Your task to perform on an android device: Open Google Maps and go to "Timeline" Image 0: 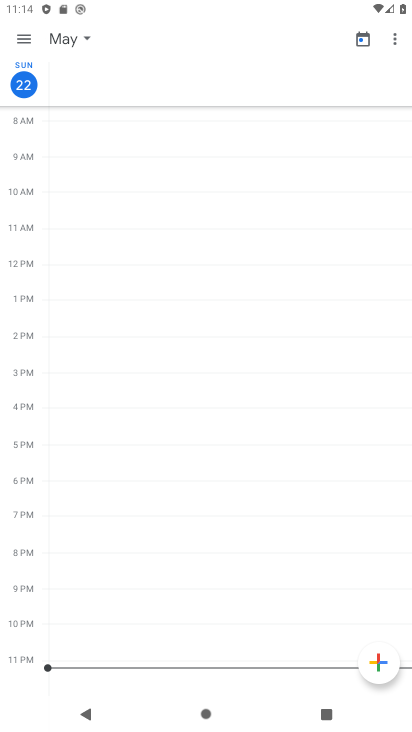
Step 0: press home button
Your task to perform on an android device: Open Google Maps and go to "Timeline" Image 1: 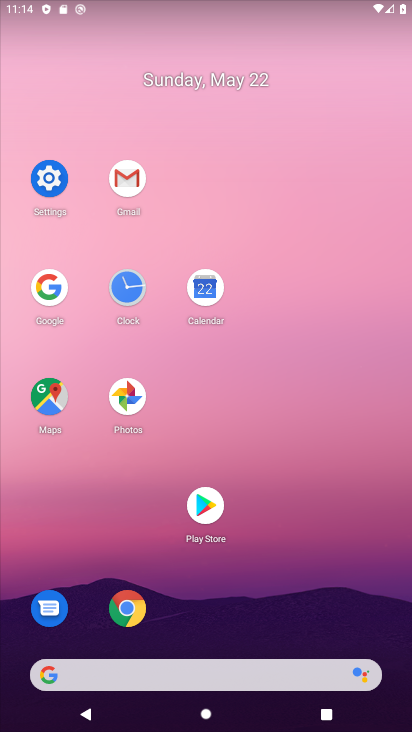
Step 1: click (46, 397)
Your task to perform on an android device: Open Google Maps and go to "Timeline" Image 2: 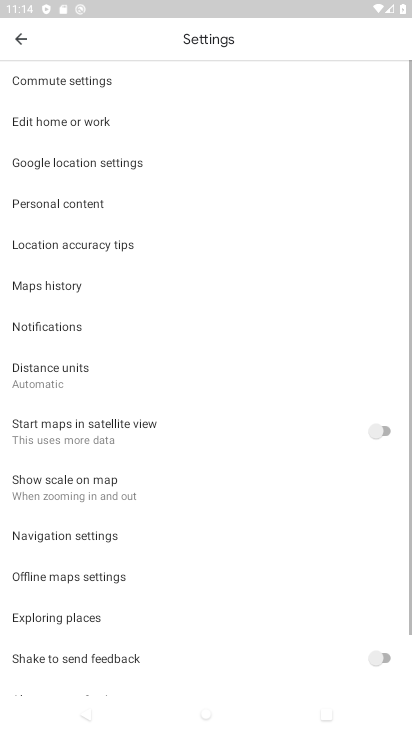
Step 2: drag from (74, 150) to (118, 545)
Your task to perform on an android device: Open Google Maps and go to "Timeline" Image 3: 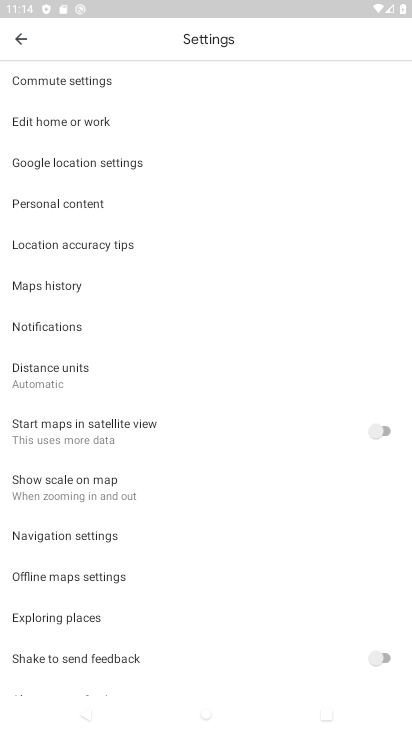
Step 3: click (26, 48)
Your task to perform on an android device: Open Google Maps and go to "Timeline" Image 4: 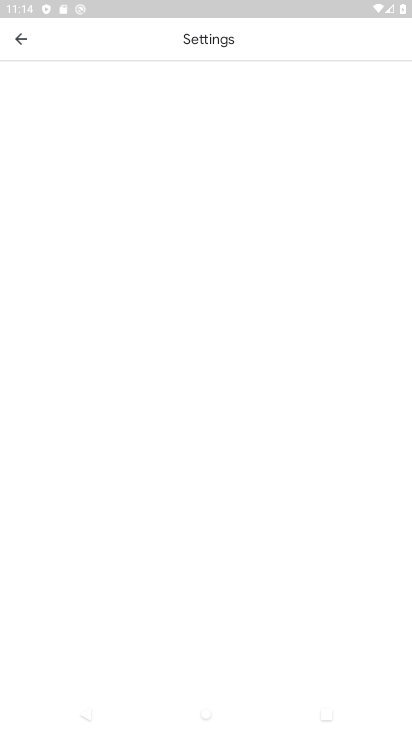
Step 4: click (26, 48)
Your task to perform on an android device: Open Google Maps and go to "Timeline" Image 5: 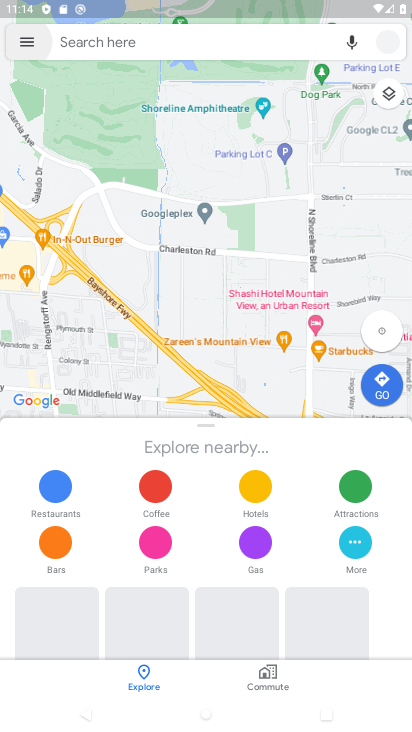
Step 5: click (36, 40)
Your task to perform on an android device: Open Google Maps and go to "Timeline" Image 6: 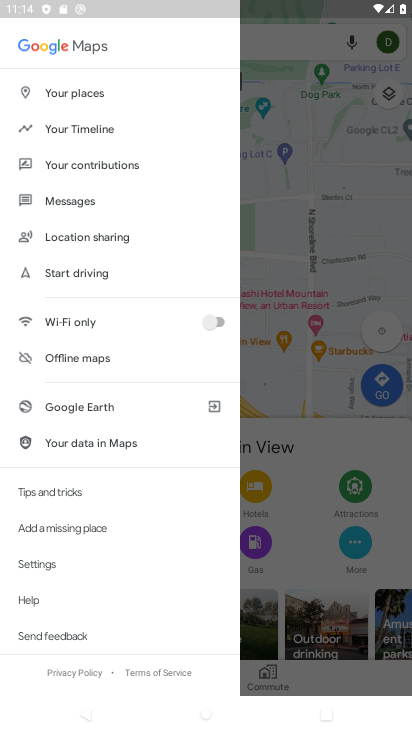
Step 6: click (87, 119)
Your task to perform on an android device: Open Google Maps and go to "Timeline" Image 7: 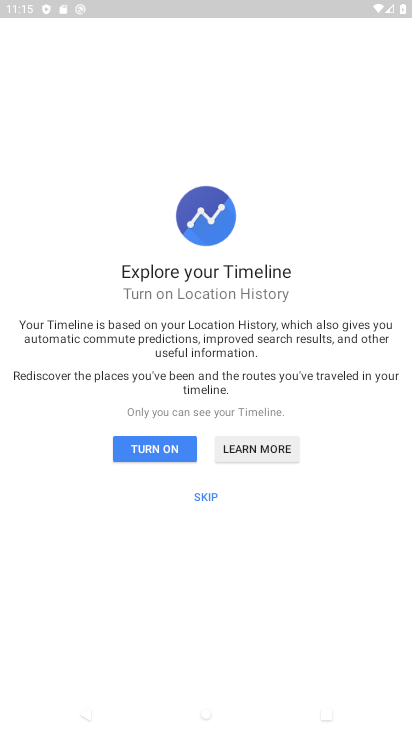
Step 7: click (145, 455)
Your task to perform on an android device: Open Google Maps and go to "Timeline" Image 8: 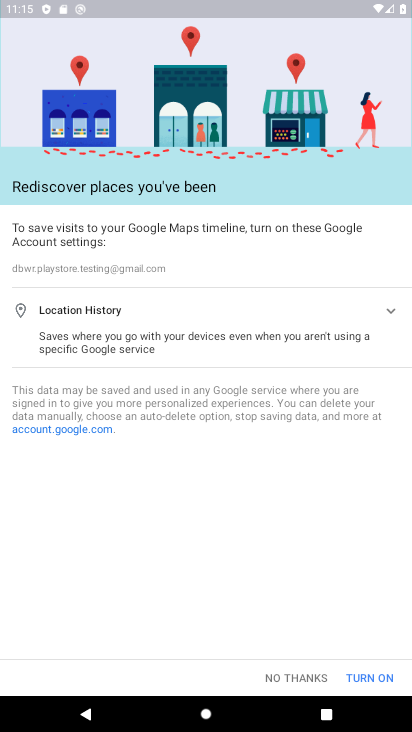
Step 8: task complete